Your task to perform on an android device: Find coffee shops on Maps Image 0: 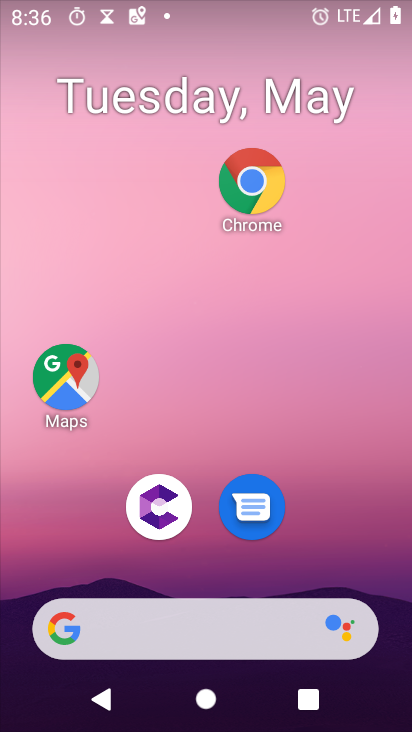
Step 0: click (77, 386)
Your task to perform on an android device: Find coffee shops on Maps Image 1: 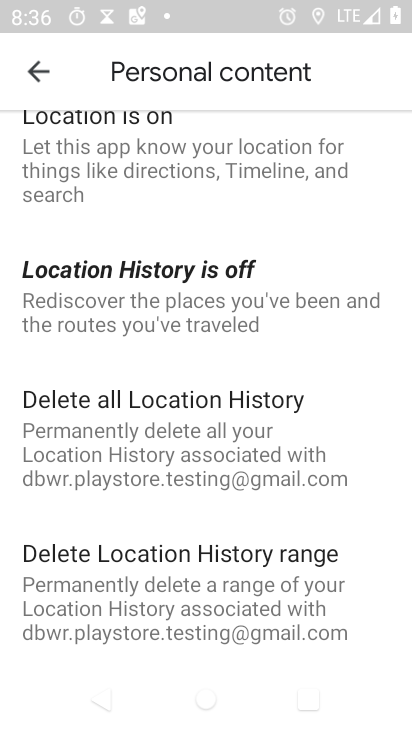
Step 1: click (43, 99)
Your task to perform on an android device: Find coffee shops on Maps Image 2: 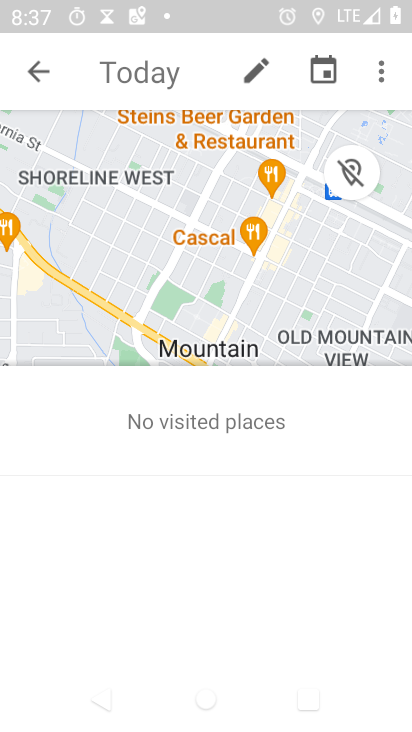
Step 2: click (53, 78)
Your task to perform on an android device: Find coffee shops on Maps Image 3: 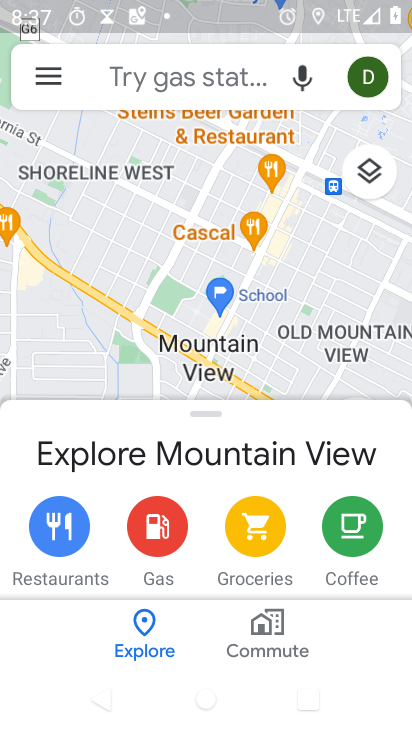
Step 3: click (200, 74)
Your task to perform on an android device: Find coffee shops on Maps Image 4: 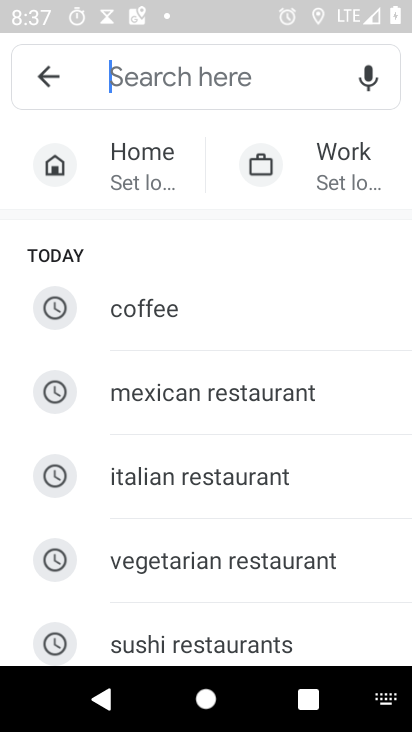
Step 4: type "coffee shops"
Your task to perform on an android device: Find coffee shops on Maps Image 5: 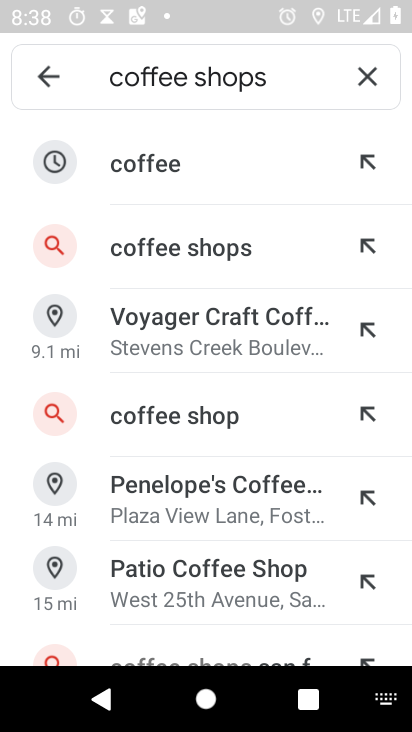
Step 5: click (127, 247)
Your task to perform on an android device: Find coffee shops on Maps Image 6: 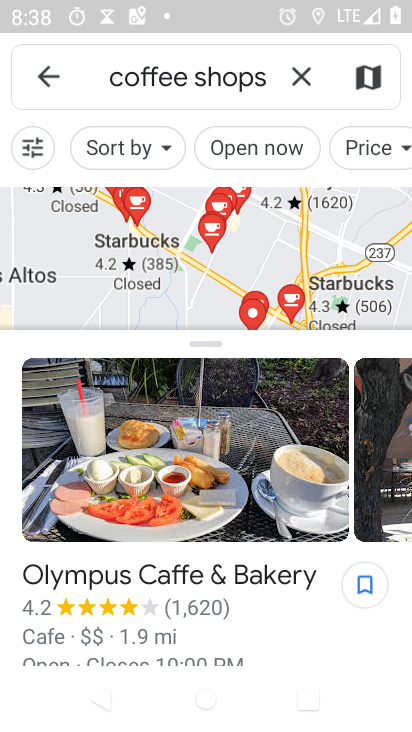
Step 6: task complete